Your task to perform on an android device: turn on showing notifications on the lock screen Image 0: 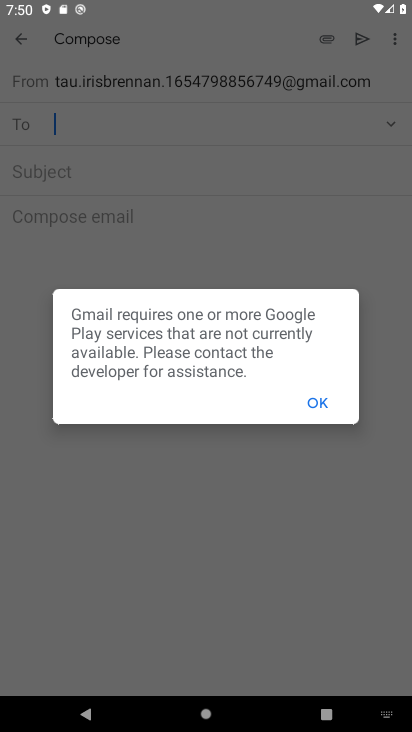
Step 0: press home button
Your task to perform on an android device: turn on showing notifications on the lock screen Image 1: 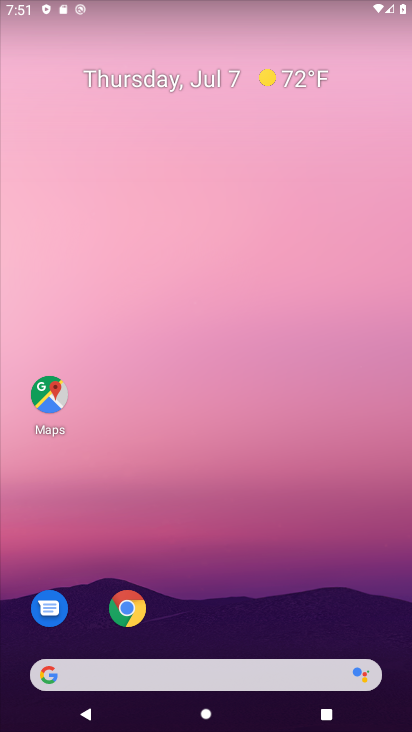
Step 1: drag from (387, 653) to (313, 103)
Your task to perform on an android device: turn on showing notifications on the lock screen Image 2: 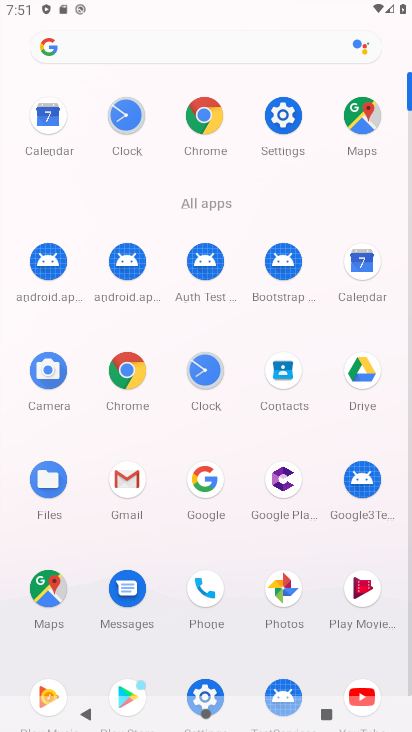
Step 2: click (281, 117)
Your task to perform on an android device: turn on showing notifications on the lock screen Image 3: 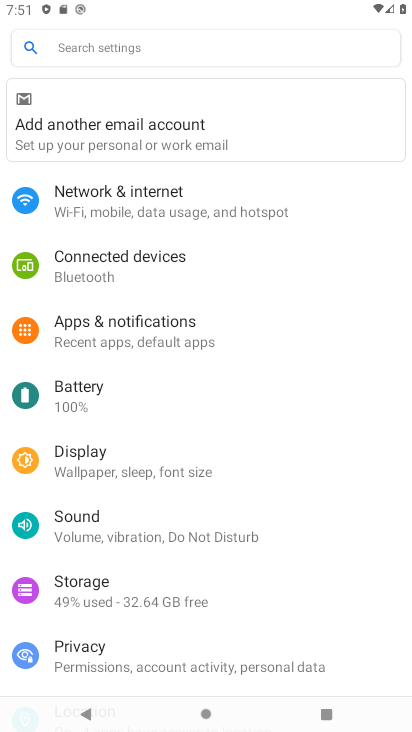
Step 3: click (108, 328)
Your task to perform on an android device: turn on showing notifications on the lock screen Image 4: 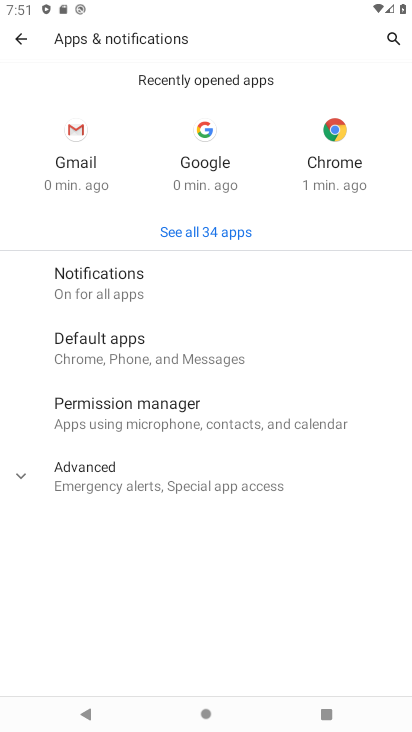
Step 4: click (76, 272)
Your task to perform on an android device: turn on showing notifications on the lock screen Image 5: 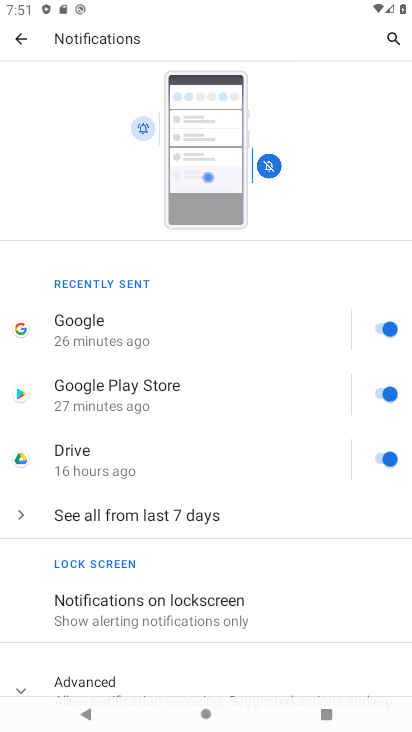
Step 5: click (101, 603)
Your task to perform on an android device: turn on showing notifications on the lock screen Image 6: 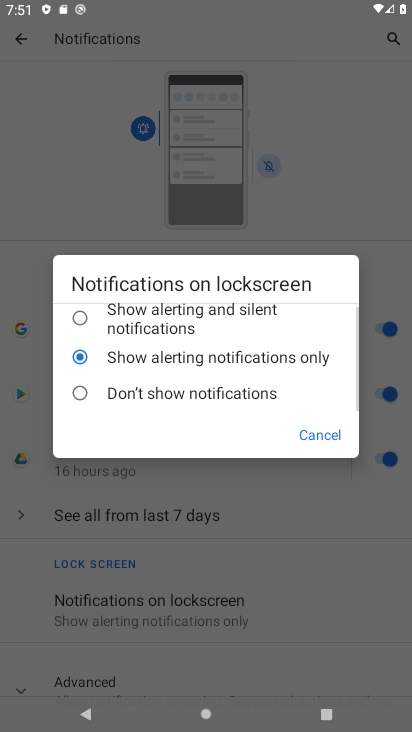
Step 6: click (74, 318)
Your task to perform on an android device: turn on showing notifications on the lock screen Image 7: 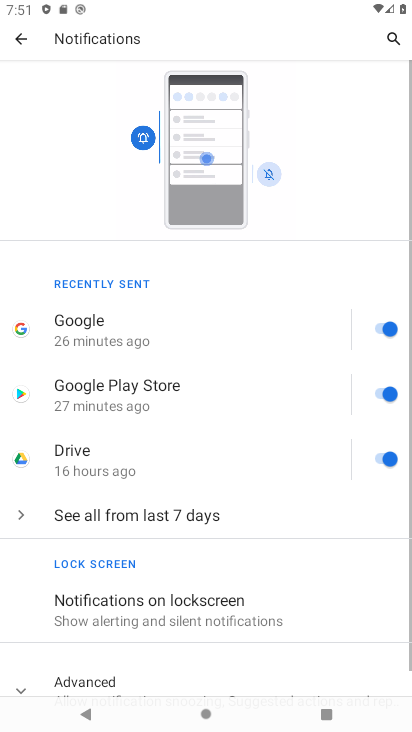
Step 7: task complete